Your task to perform on an android device: toggle priority inbox in the gmail app Image 0: 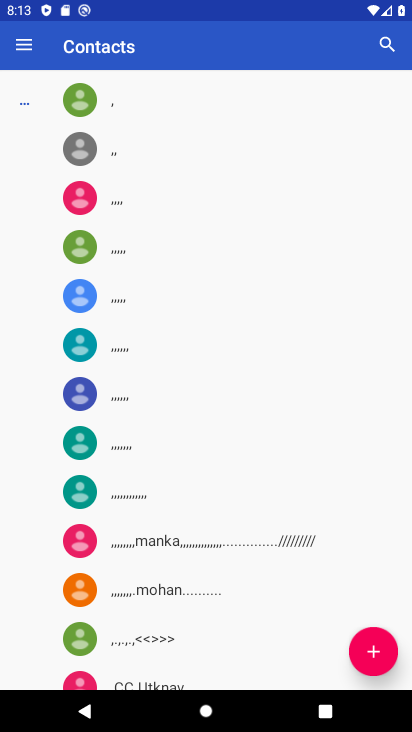
Step 0: press home button
Your task to perform on an android device: toggle priority inbox in the gmail app Image 1: 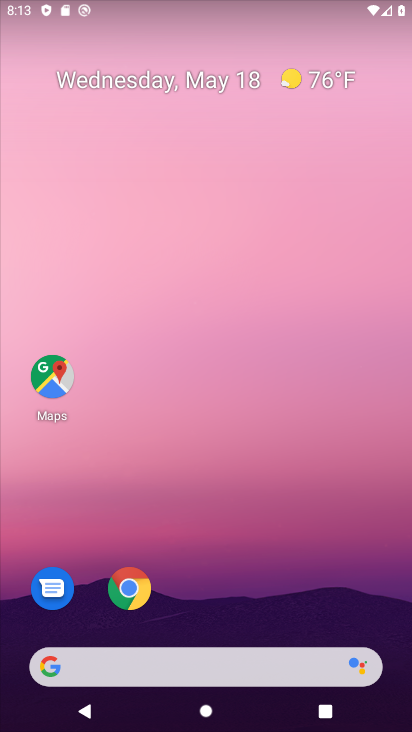
Step 1: drag from (288, 577) to (295, 265)
Your task to perform on an android device: toggle priority inbox in the gmail app Image 2: 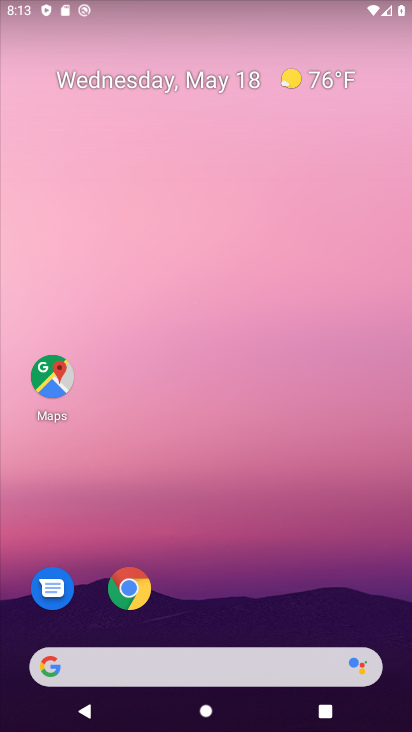
Step 2: drag from (225, 587) to (233, 141)
Your task to perform on an android device: toggle priority inbox in the gmail app Image 3: 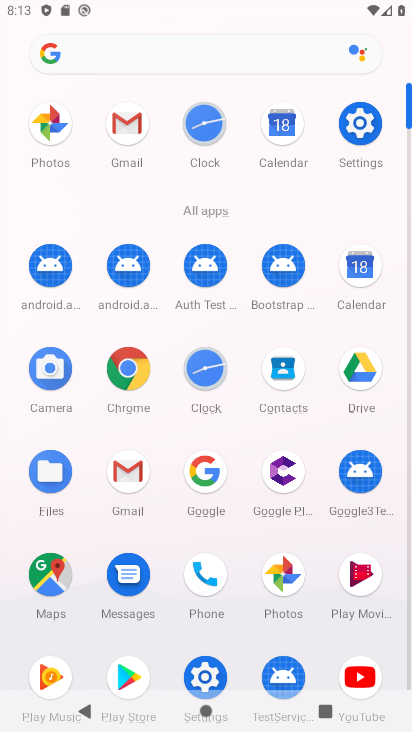
Step 3: click (134, 144)
Your task to perform on an android device: toggle priority inbox in the gmail app Image 4: 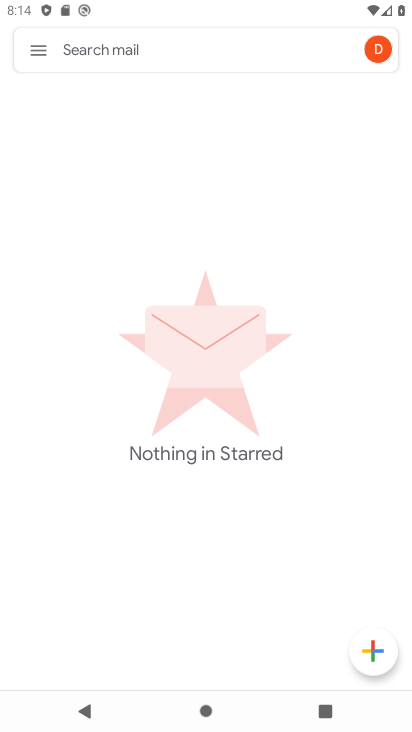
Step 4: click (25, 54)
Your task to perform on an android device: toggle priority inbox in the gmail app Image 5: 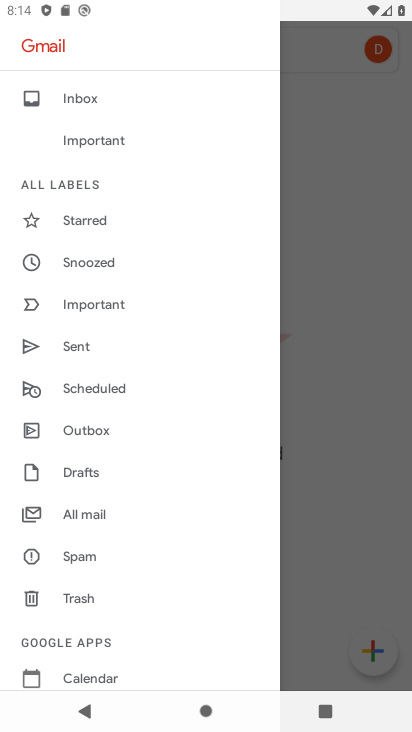
Step 5: drag from (100, 595) to (116, 397)
Your task to perform on an android device: toggle priority inbox in the gmail app Image 6: 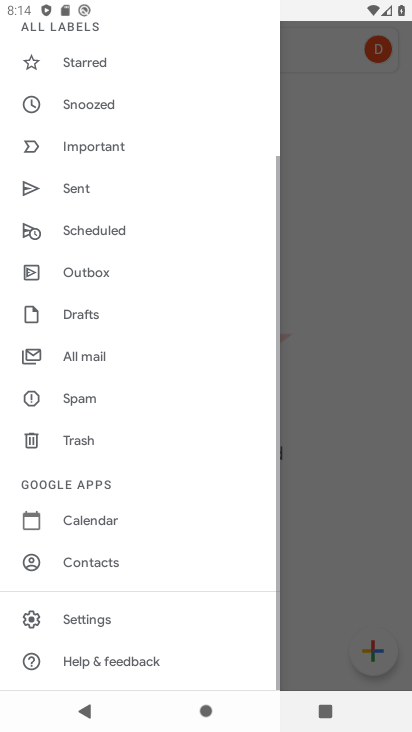
Step 6: click (120, 615)
Your task to perform on an android device: toggle priority inbox in the gmail app Image 7: 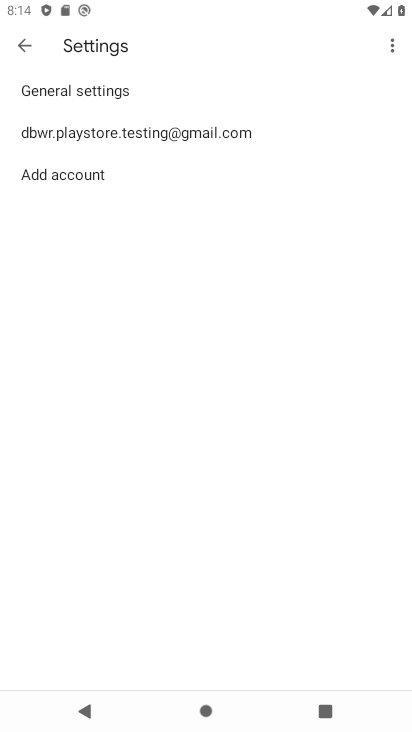
Step 7: click (100, 130)
Your task to perform on an android device: toggle priority inbox in the gmail app Image 8: 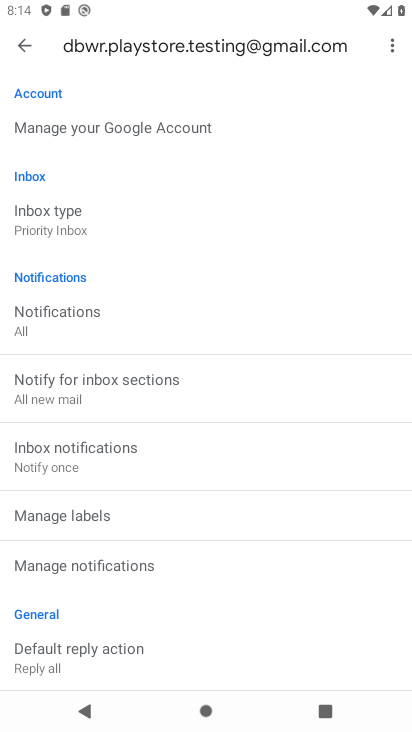
Step 8: click (103, 210)
Your task to perform on an android device: toggle priority inbox in the gmail app Image 9: 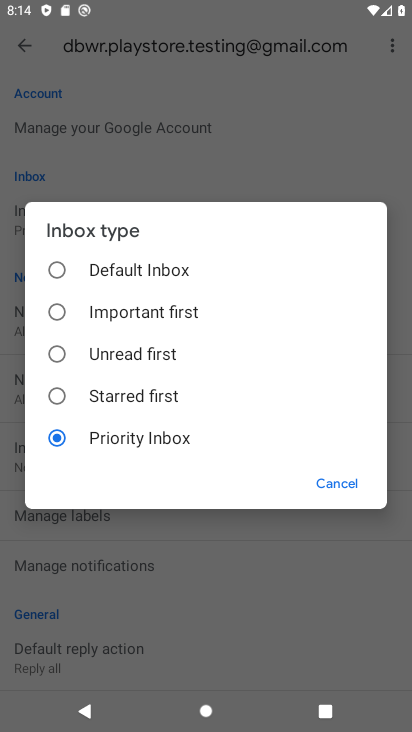
Step 9: click (129, 390)
Your task to perform on an android device: toggle priority inbox in the gmail app Image 10: 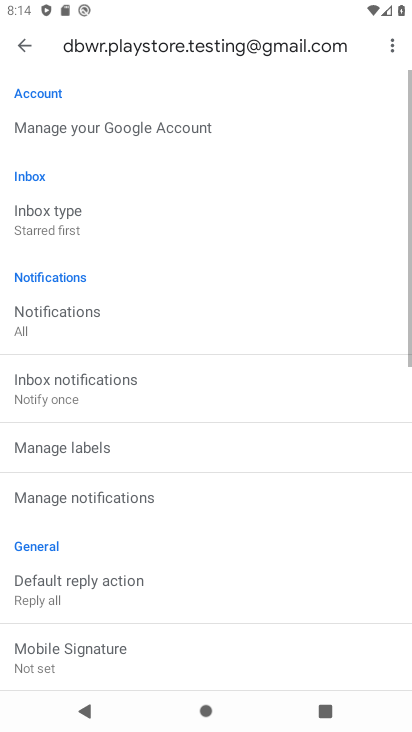
Step 10: task complete